Your task to perform on an android device: toggle wifi Image 0: 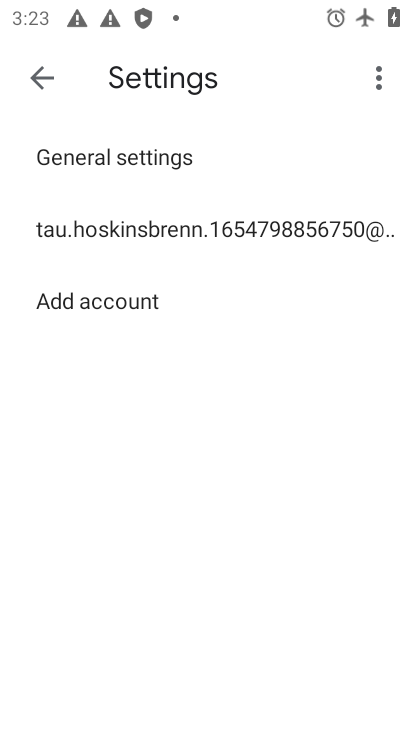
Step 0: press home button
Your task to perform on an android device: toggle wifi Image 1: 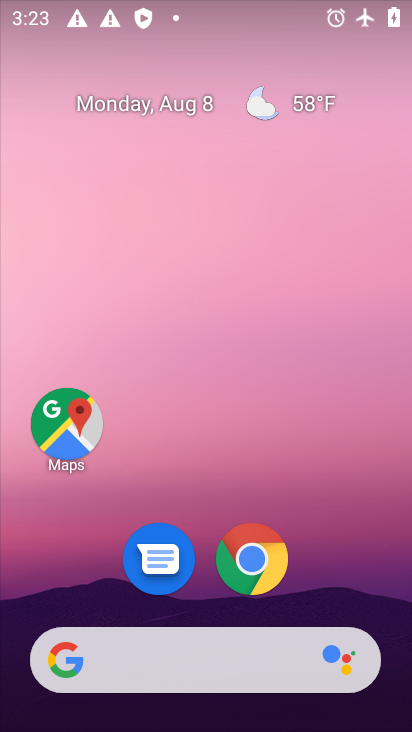
Step 1: drag from (199, 649) to (235, 168)
Your task to perform on an android device: toggle wifi Image 2: 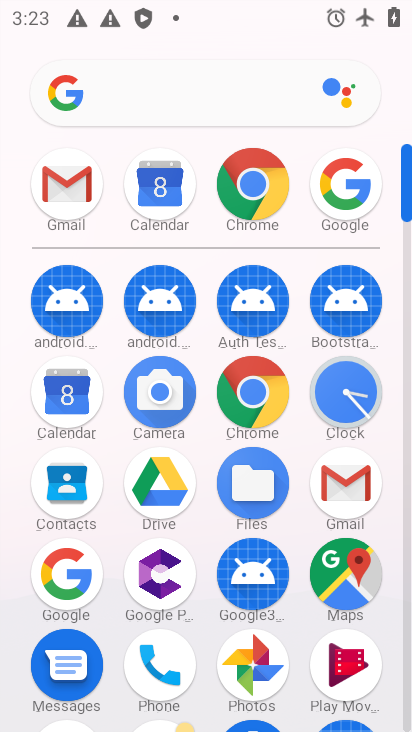
Step 2: drag from (193, 579) to (191, 393)
Your task to perform on an android device: toggle wifi Image 3: 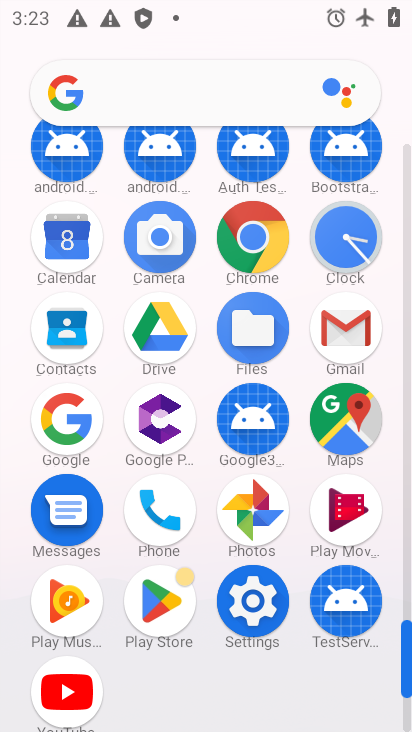
Step 3: click (250, 602)
Your task to perform on an android device: toggle wifi Image 4: 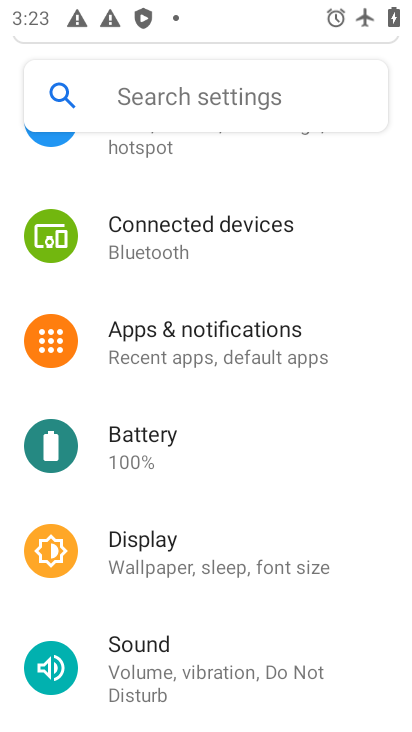
Step 4: drag from (205, 201) to (196, 410)
Your task to perform on an android device: toggle wifi Image 5: 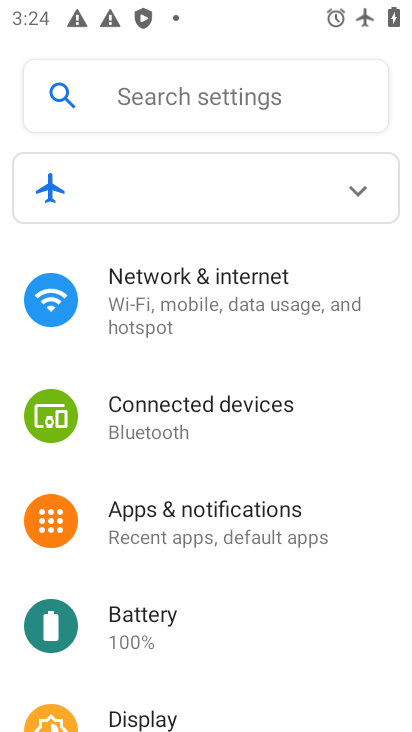
Step 5: drag from (186, 526) to (255, 422)
Your task to perform on an android device: toggle wifi Image 6: 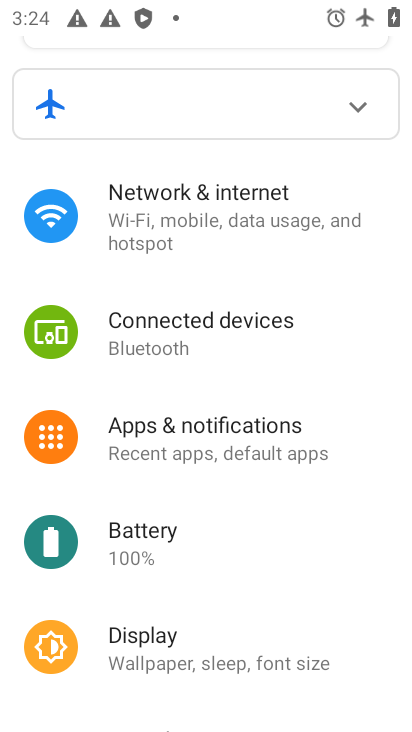
Step 6: drag from (220, 555) to (251, 492)
Your task to perform on an android device: toggle wifi Image 7: 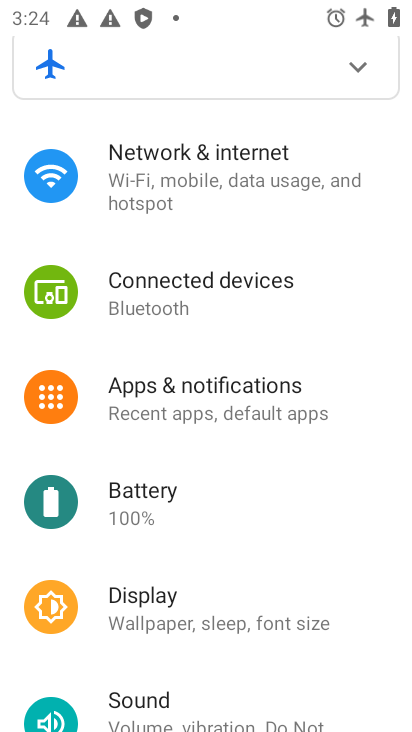
Step 7: click (204, 185)
Your task to perform on an android device: toggle wifi Image 8: 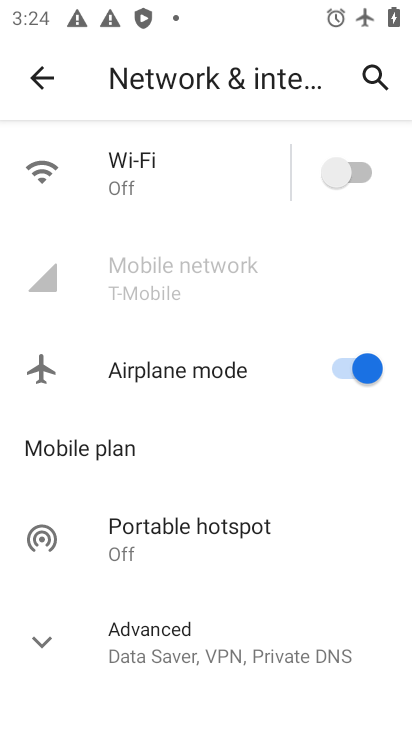
Step 8: click (345, 181)
Your task to perform on an android device: toggle wifi Image 9: 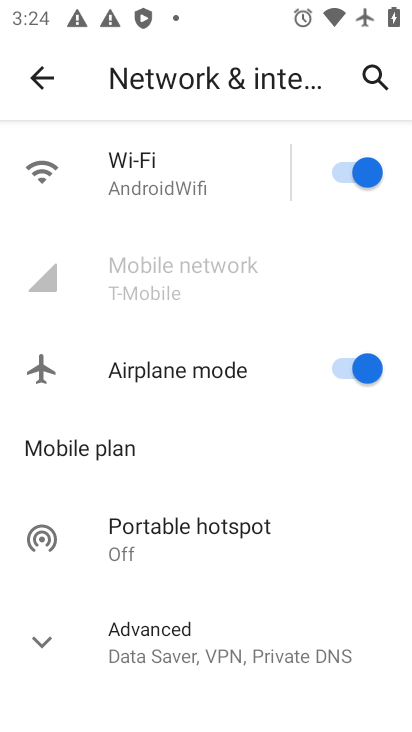
Step 9: task complete